Your task to perform on an android device: change the clock display to show seconds Image 0: 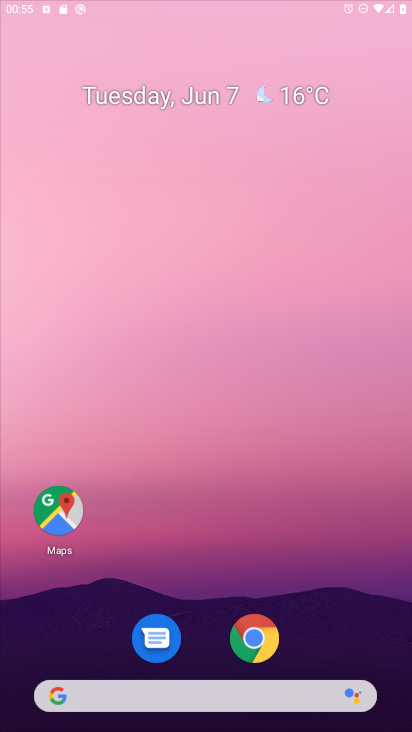
Step 0: drag from (281, 606) to (248, 278)
Your task to perform on an android device: change the clock display to show seconds Image 1: 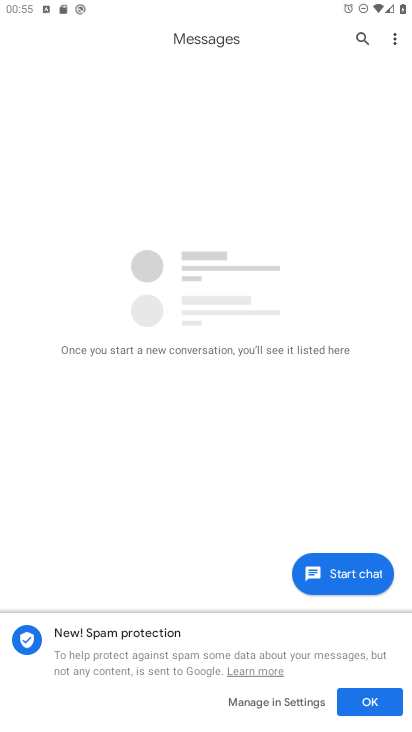
Step 1: press home button
Your task to perform on an android device: change the clock display to show seconds Image 2: 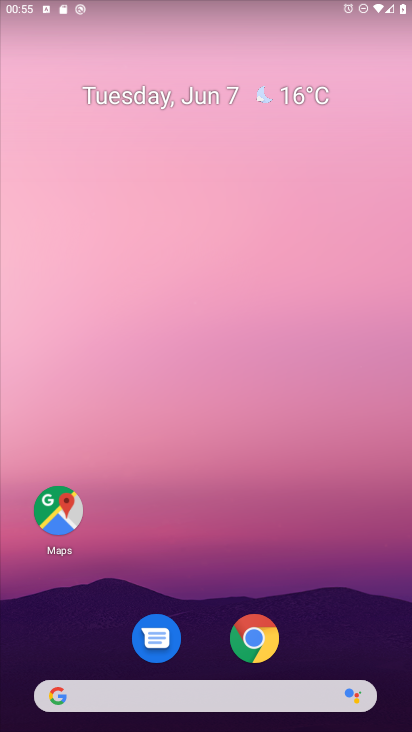
Step 2: drag from (216, 708) to (208, 298)
Your task to perform on an android device: change the clock display to show seconds Image 3: 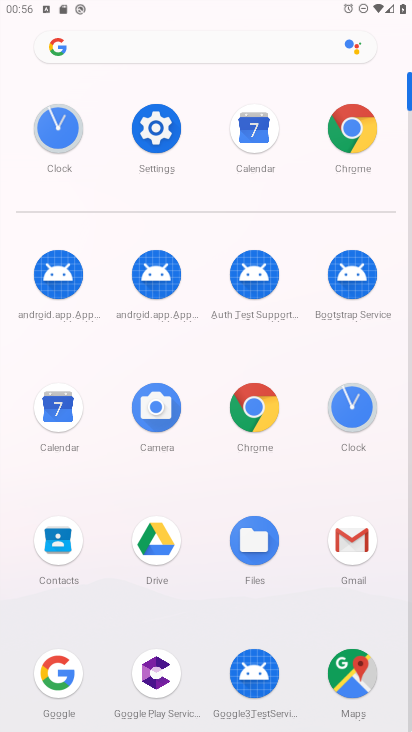
Step 3: click (346, 416)
Your task to perform on an android device: change the clock display to show seconds Image 4: 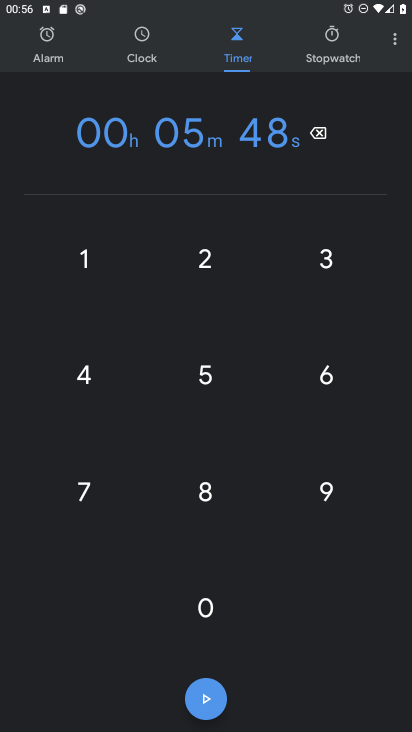
Step 4: click (384, 51)
Your task to perform on an android device: change the clock display to show seconds Image 5: 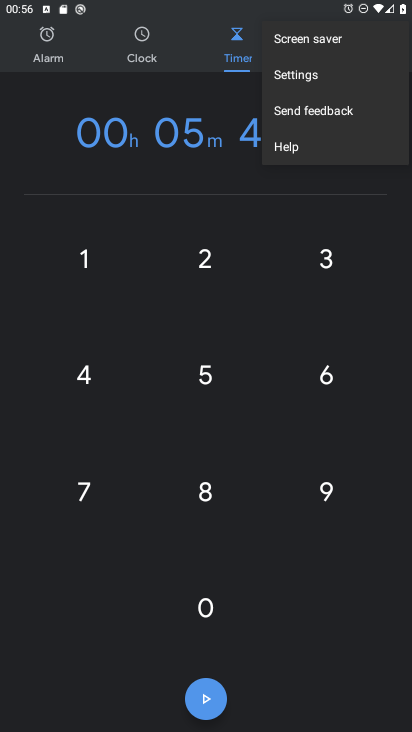
Step 5: click (260, 72)
Your task to perform on an android device: change the clock display to show seconds Image 6: 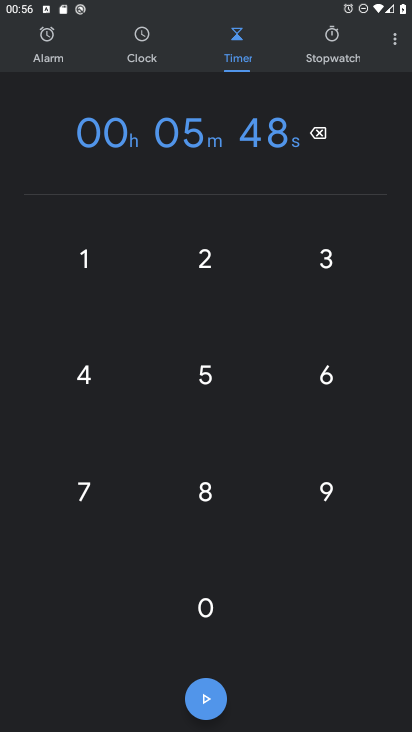
Step 6: click (387, 29)
Your task to perform on an android device: change the clock display to show seconds Image 7: 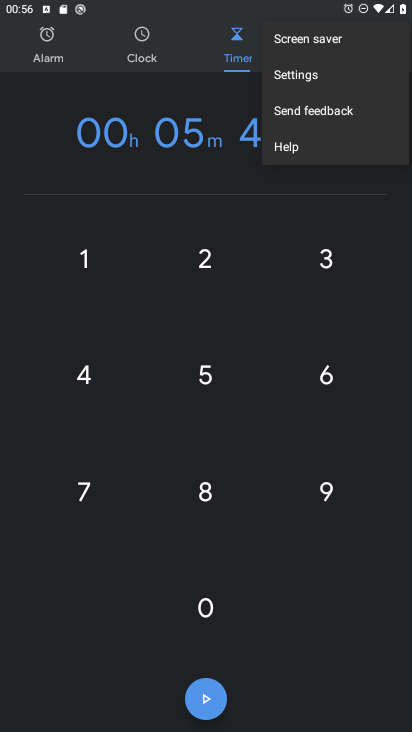
Step 7: click (330, 69)
Your task to perform on an android device: change the clock display to show seconds Image 8: 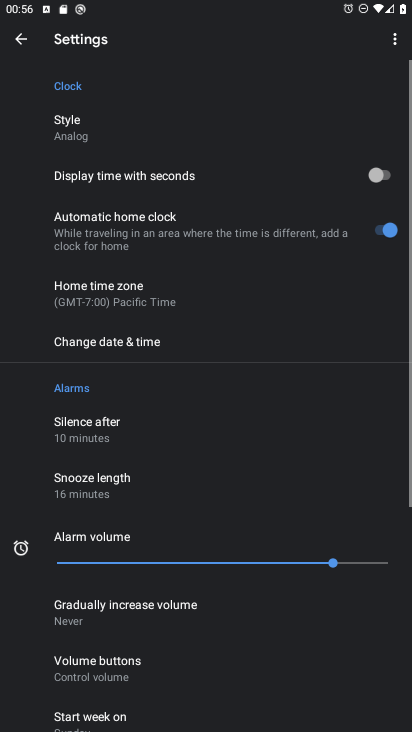
Step 8: click (373, 195)
Your task to perform on an android device: change the clock display to show seconds Image 9: 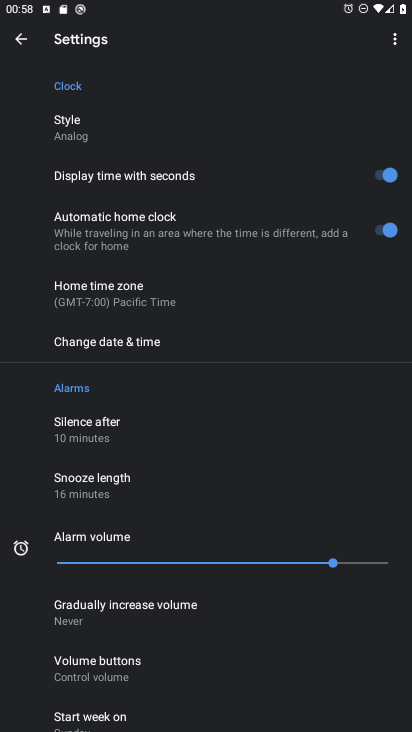
Step 9: task complete